Your task to perform on an android device: turn on the 12-hour format for clock Image 0: 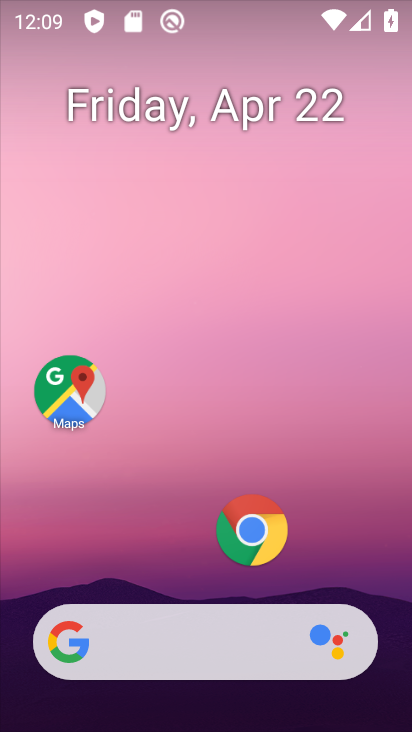
Step 0: drag from (238, 713) to (236, 138)
Your task to perform on an android device: turn on the 12-hour format for clock Image 1: 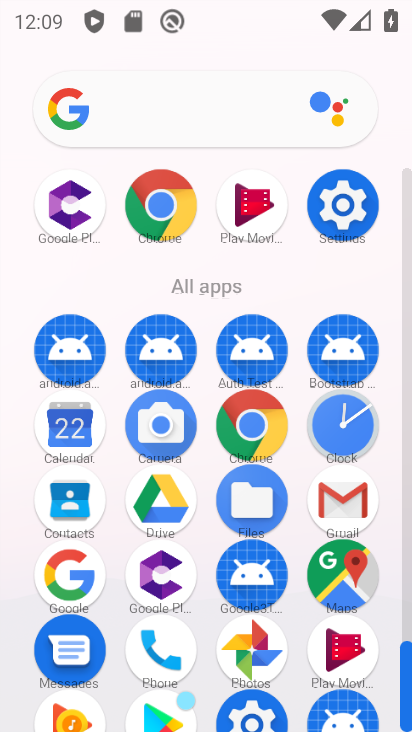
Step 1: click (349, 421)
Your task to perform on an android device: turn on the 12-hour format for clock Image 2: 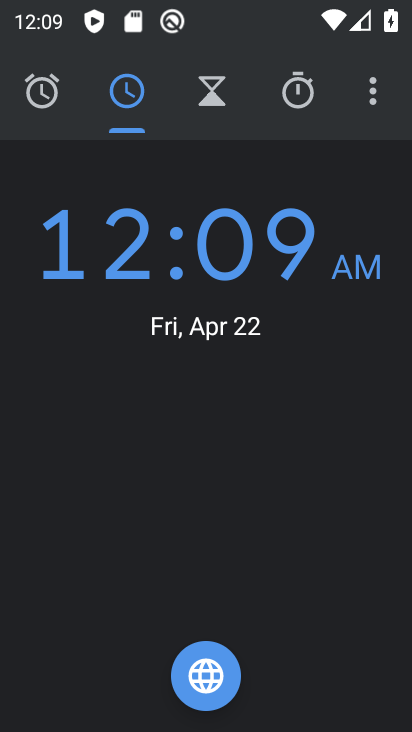
Step 2: click (372, 95)
Your task to perform on an android device: turn on the 12-hour format for clock Image 3: 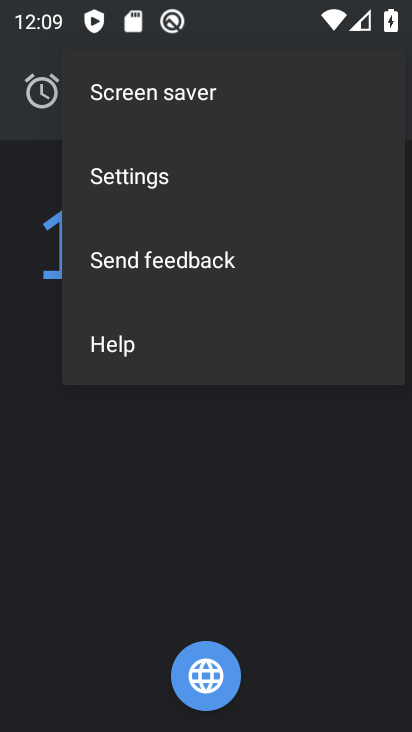
Step 3: click (150, 175)
Your task to perform on an android device: turn on the 12-hour format for clock Image 4: 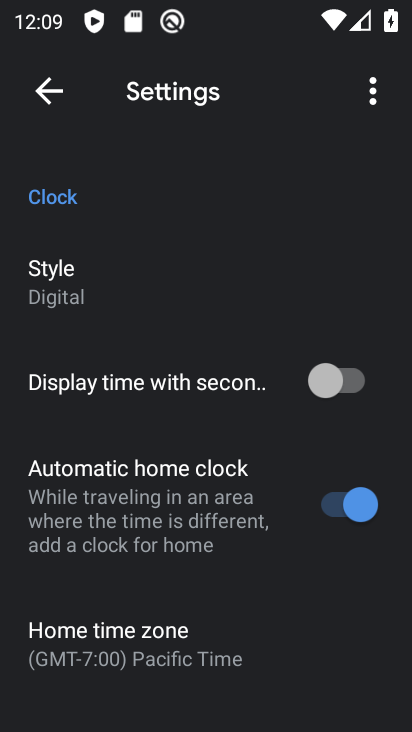
Step 4: drag from (199, 609) to (187, 322)
Your task to perform on an android device: turn on the 12-hour format for clock Image 5: 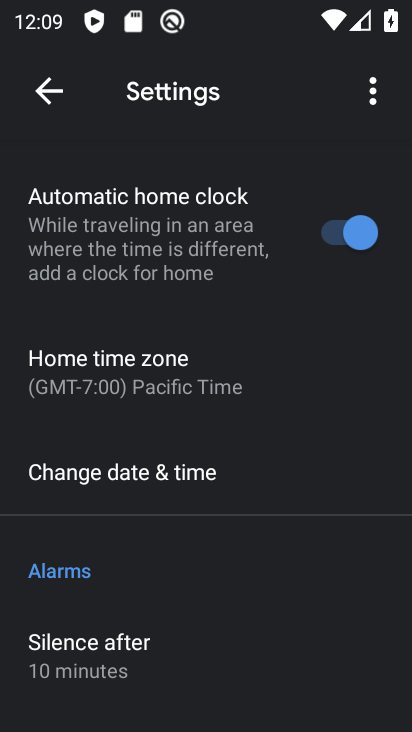
Step 5: click (168, 467)
Your task to perform on an android device: turn on the 12-hour format for clock Image 6: 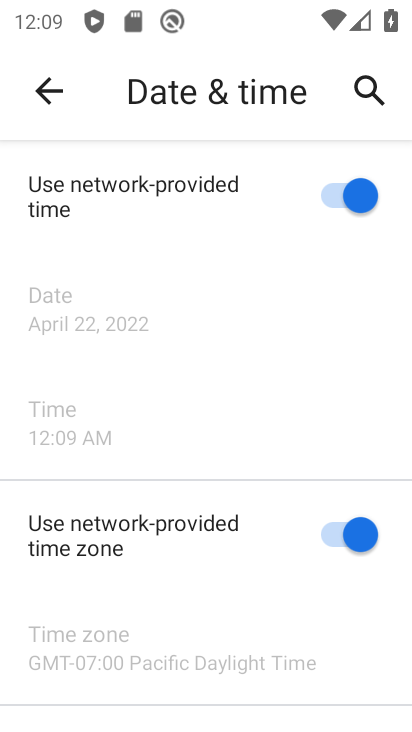
Step 6: task complete